Your task to perform on an android device: toggle data saver in the chrome app Image 0: 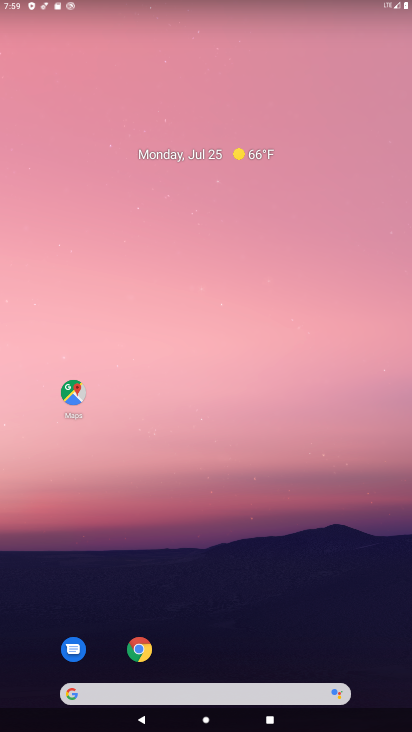
Step 0: click (144, 642)
Your task to perform on an android device: toggle data saver in the chrome app Image 1: 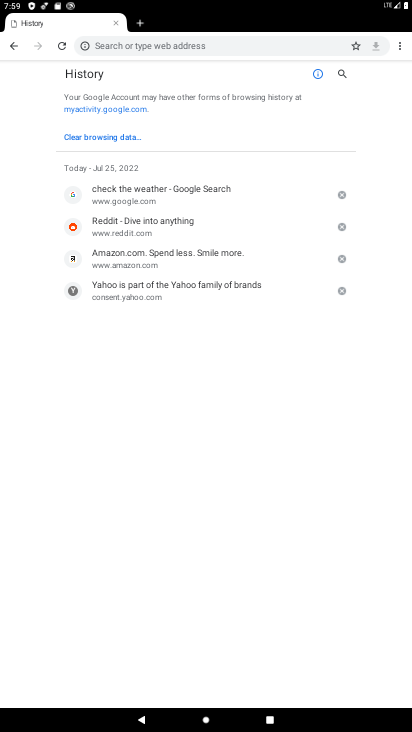
Step 1: click (402, 51)
Your task to perform on an android device: toggle data saver in the chrome app Image 2: 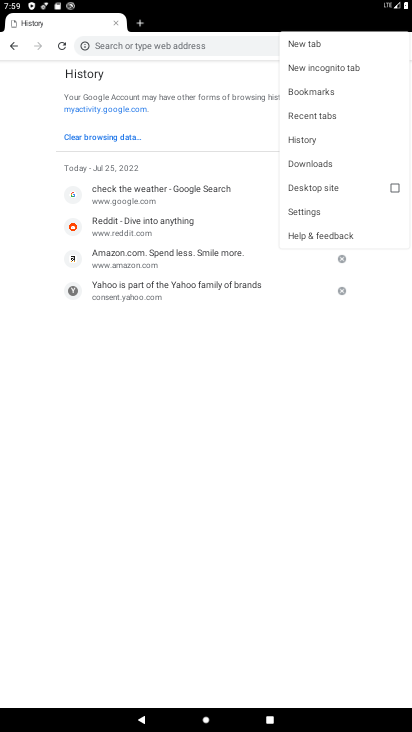
Step 2: click (318, 211)
Your task to perform on an android device: toggle data saver in the chrome app Image 3: 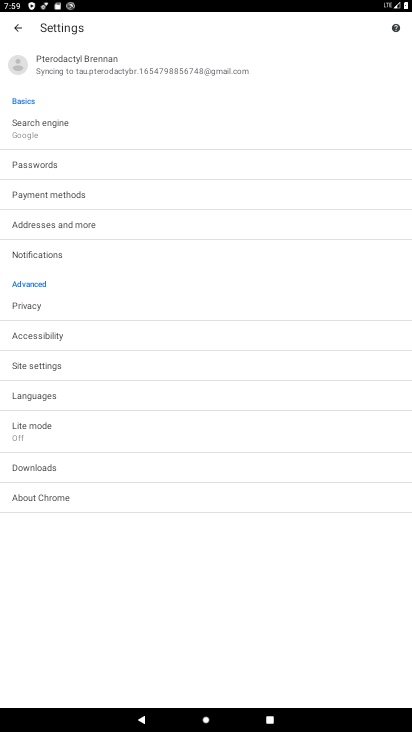
Step 3: click (98, 442)
Your task to perform on an android device: toggle data saver in the chrome app Image 4: 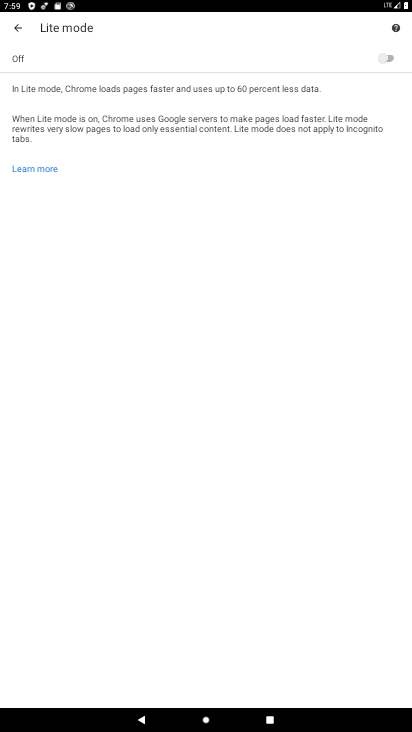
Step 4: click (390, 59)
Your task to perform on an android device: toggle data saver in the chrome app Image 5: 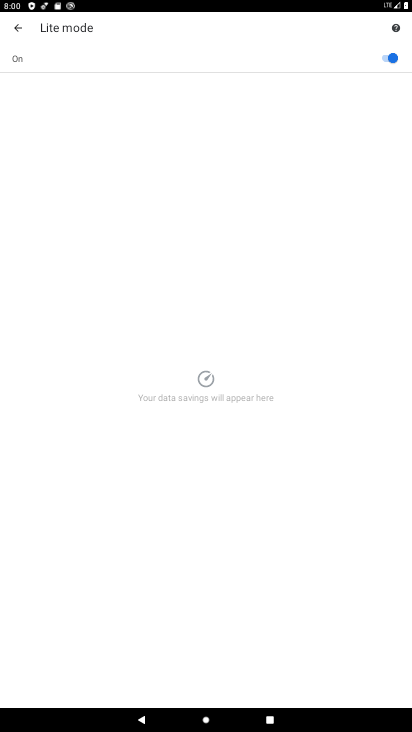
Step 5: task complete